Your task to perform on an android device: turn off notifications in google photos Image 0: 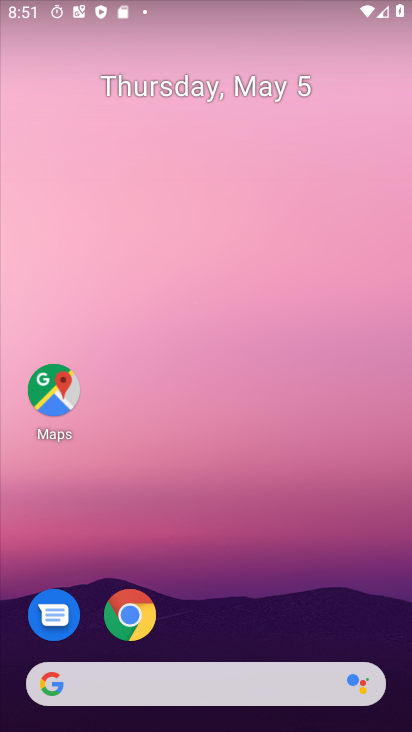
Step 0: drag from (230, 639) to (318, 47)
Your task to perform on an android device: turn off notifications in google photos Image 1: 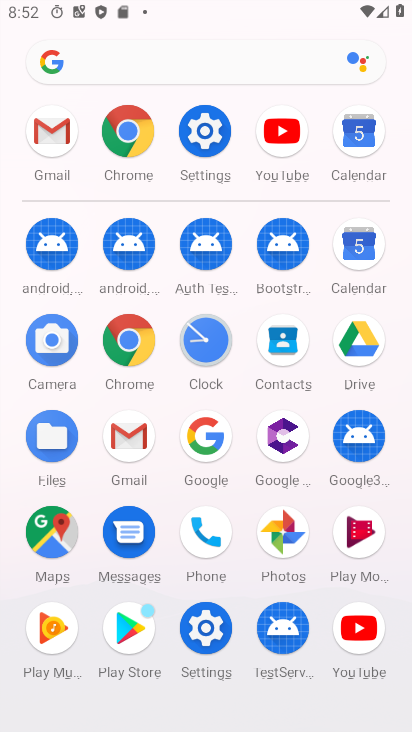
Step 1: click (273, 547)
Your task to perform on an android device: turn off notifications in google photos Image 2: 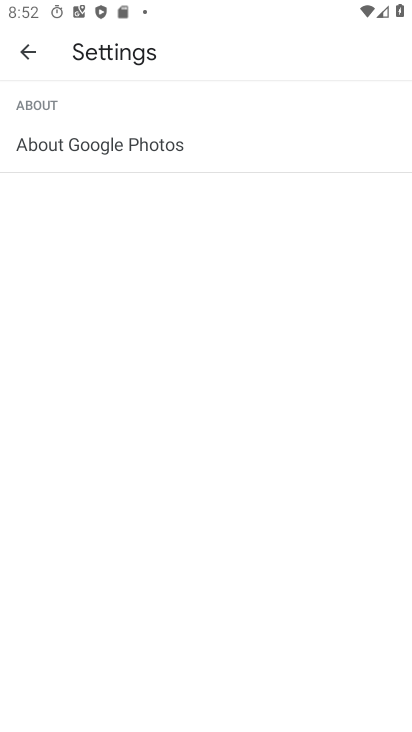
Step 2: click (27, 51)
Your task to perform on an android device: turn off notifications in google photos Image 3: 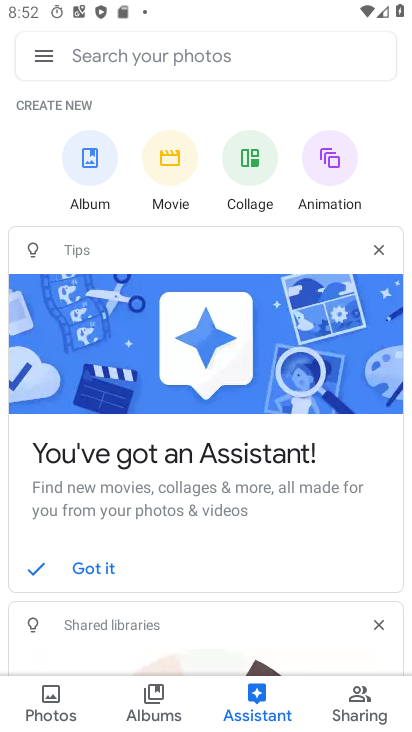
Step 3: click (45, 61)
Your task to perform on an android device: turn off notifications in google photos Image 4: 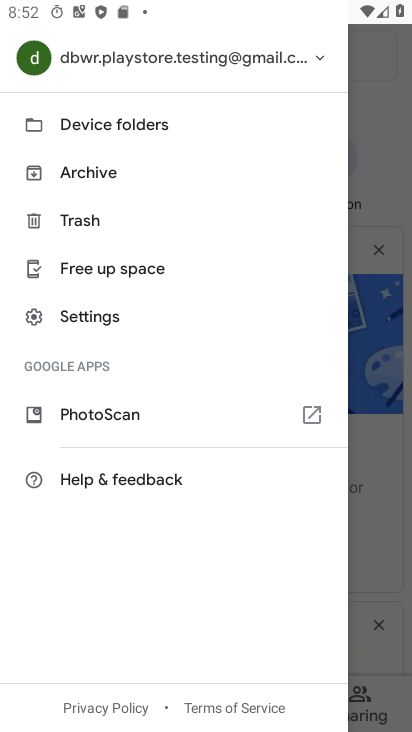
Step 4: click (107, 314)
Your task to perform on an android device: turn off notifications in google photos Image 5: 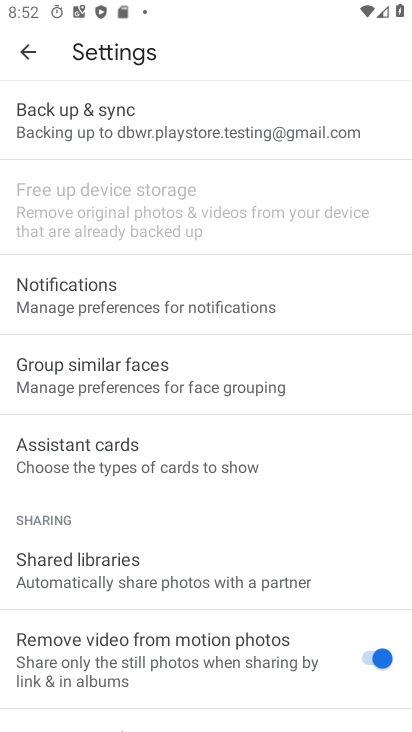
Step 5: click (149, 288)
Your task to perform on an android device: turn off notifications in google photos Image 6: 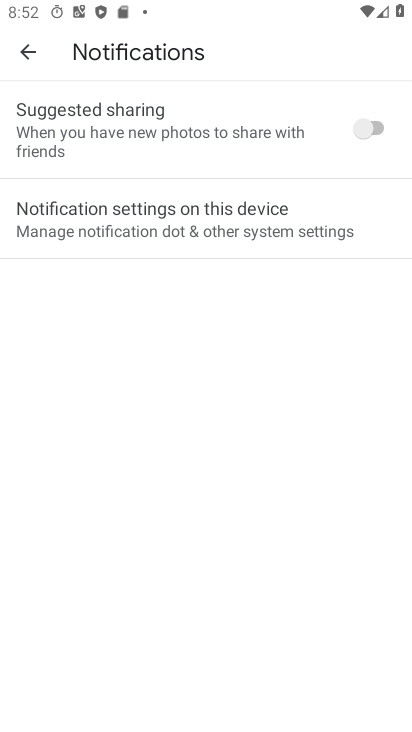
Step 6: click (176, 220)
Your task to perform on an android device: turn off notifications in google photos Image 7: 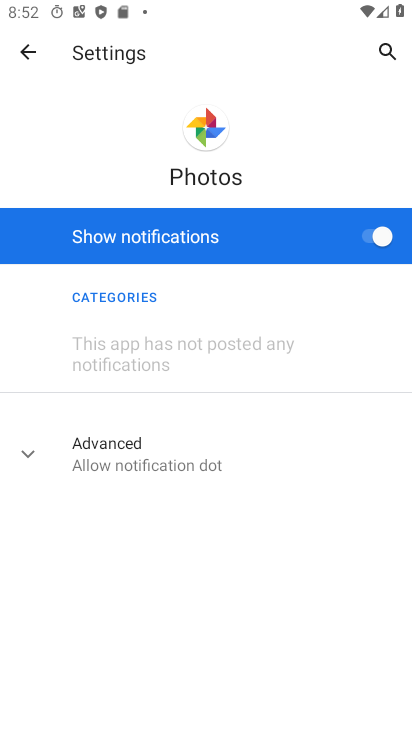
Step 7: click (367, 235)
Your task to perform on an android device: turn off notifications in google photos Image 8: 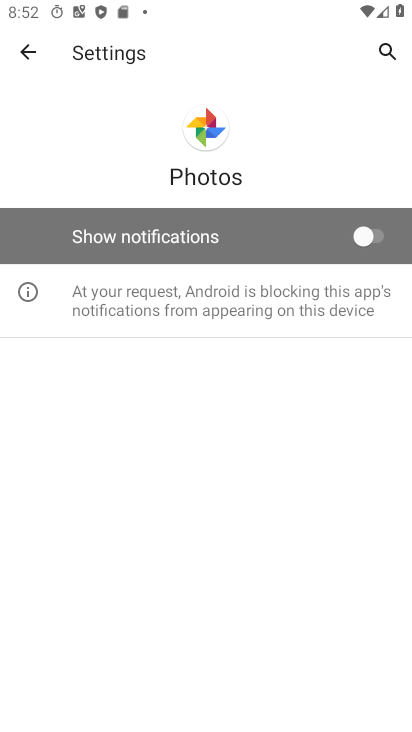
Step 8: task complete